Your task to perform on an android device: set an alarm Image 0: 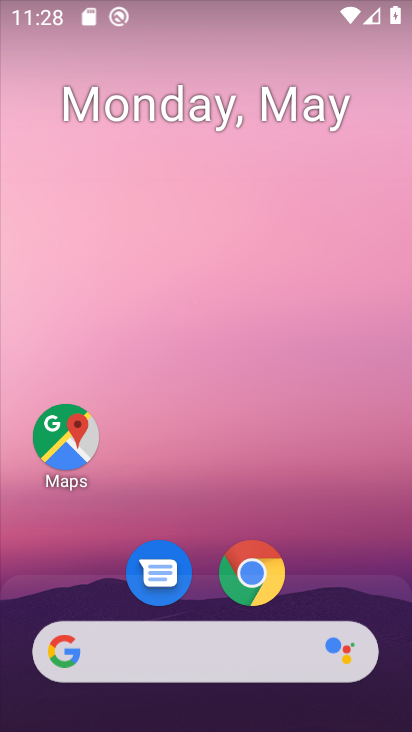
Step 0: drag from (290, 219) to (300, 0)
Your task to perform on an android device: set an alarm Image 1: 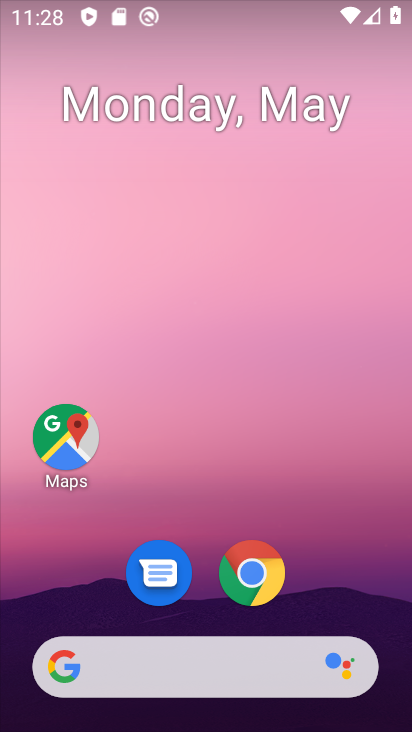
Step 1: drag from (123, 687) to (158, 20)
Your task to perform on an android device: set an alarm Image 2: 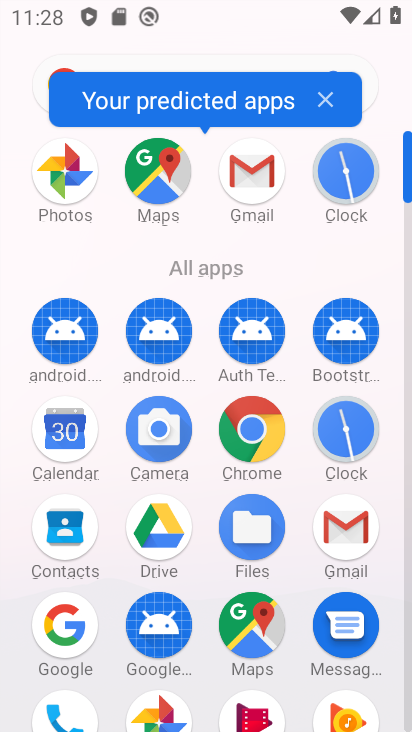
Step 2: click (357, 448)
Your task to perform on an android device: set an alarm Image 3: 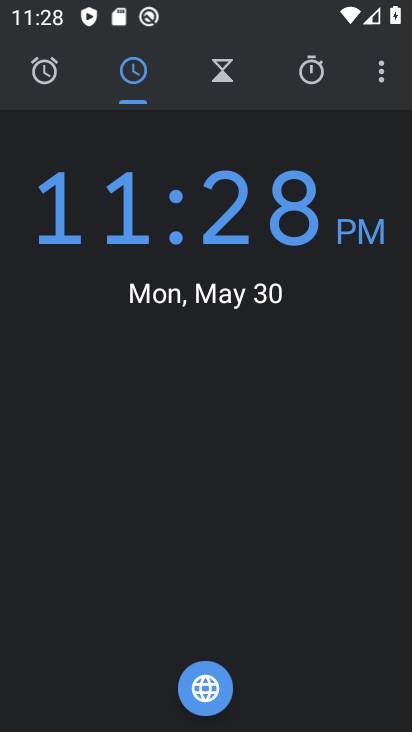
Step 3: click (56, 79)
Your task to perform on an android device: set an alarm Image 4: 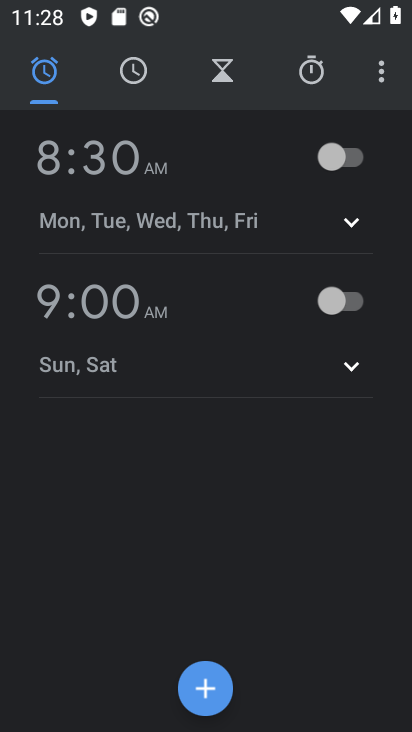
Step 4: click (337, 301)
Your task to perform on an android device: set an alarm Image 5: 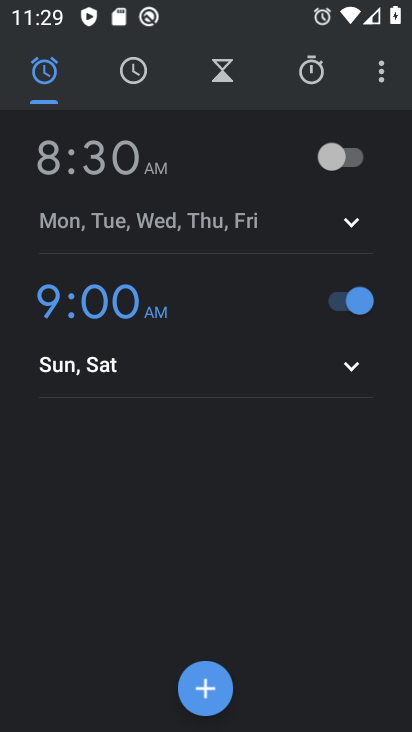
Step 5: task complete